Your task to perform on an android device: turn off wifi Image 0: 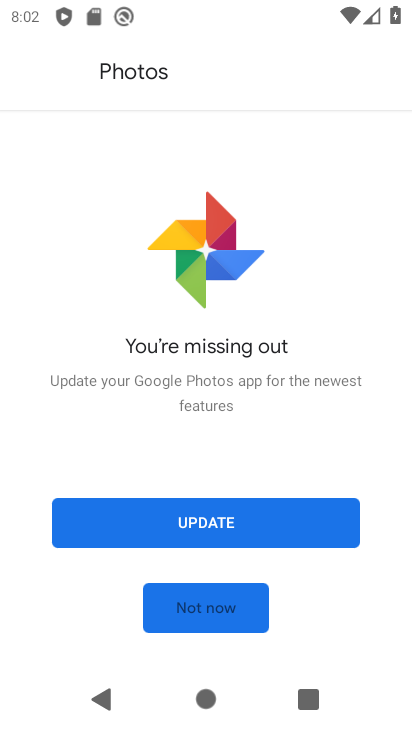
Step 0: press home button
Your task to perform on an android device: turn off wifi Image 1: 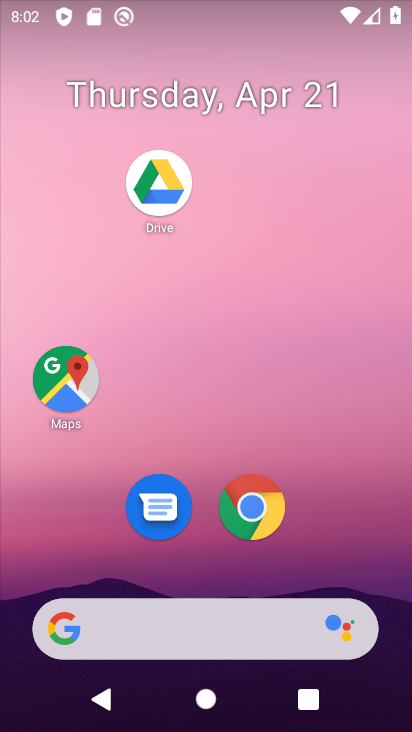
Step 1: drag from (346, 547) to (363, 143)
Your task to perform on an android device: turn off wifi Image 2: 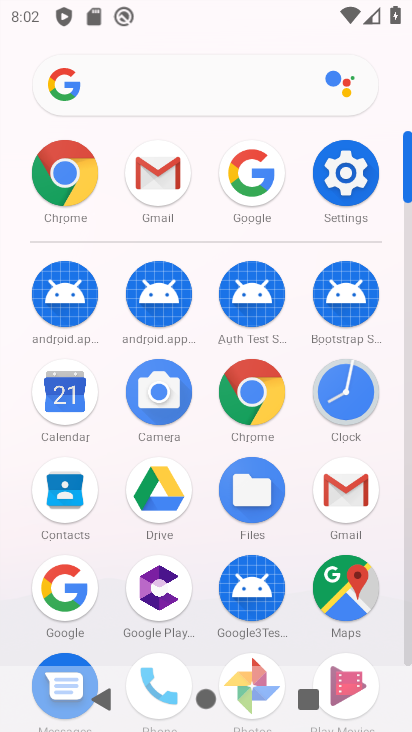
Step 2: click (351, 181)
Your task to perform on an android device: turn off wifi Image 3: 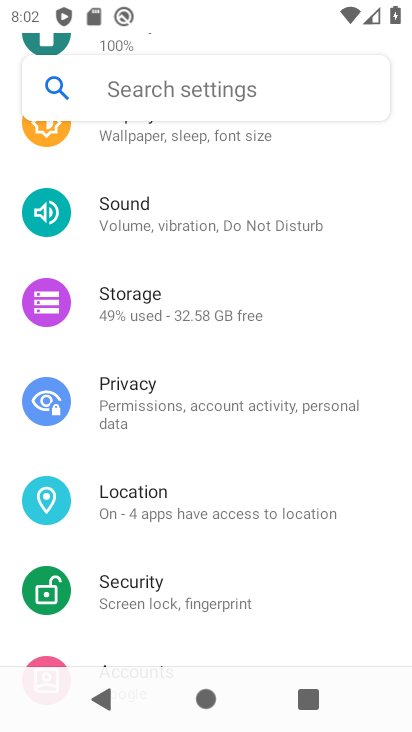
Step 3: drag from (371, 608) to (372, 416)
Your task to perform on an android device: turn off wifi Image 4: 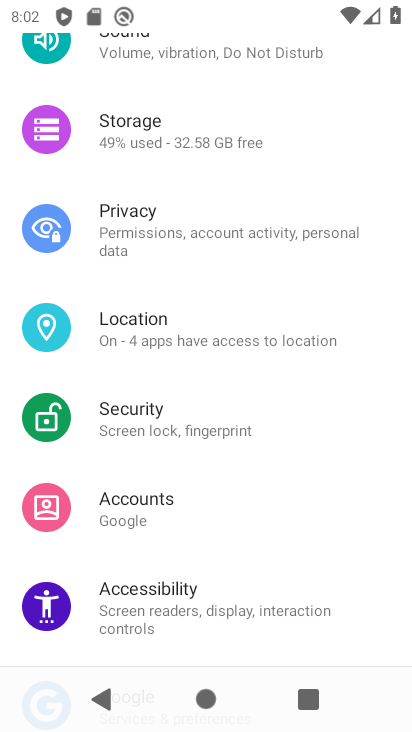
Step 4: drag from (360, 533) to (363, 321)
Your task to perform on an android device: turn off wifi Image 5: 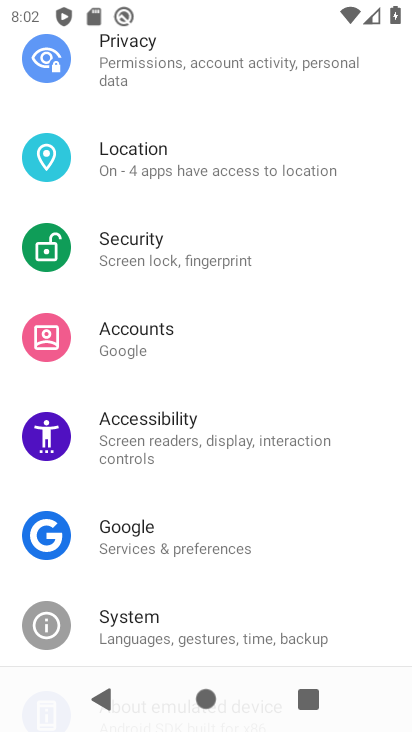
Step 5: drag from (361, 543) to (361, 319)
Your task to perform on an android device: turn off wifi Image 6: 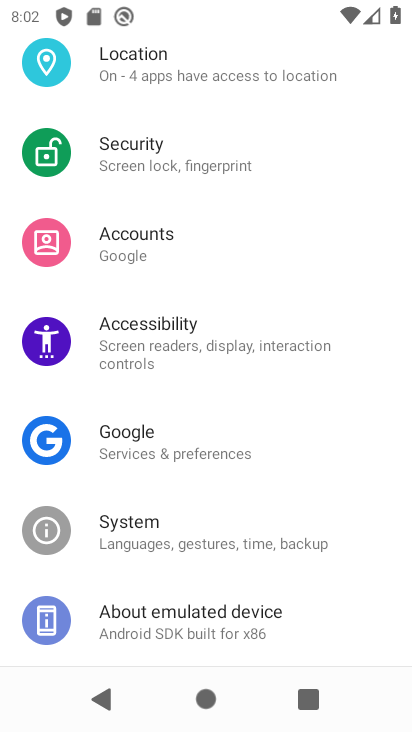
Step 6: drag from (370, 259) to (364, 407)
Your task to perform on an android device: turn off wifi Image 7: 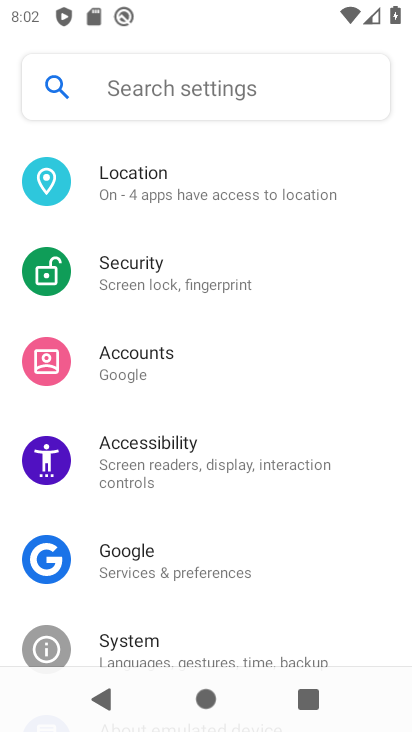
Step 7: drag from (369, 276) to (378, 429)
Your task to perform on an android device: turn off wifi Image 8: 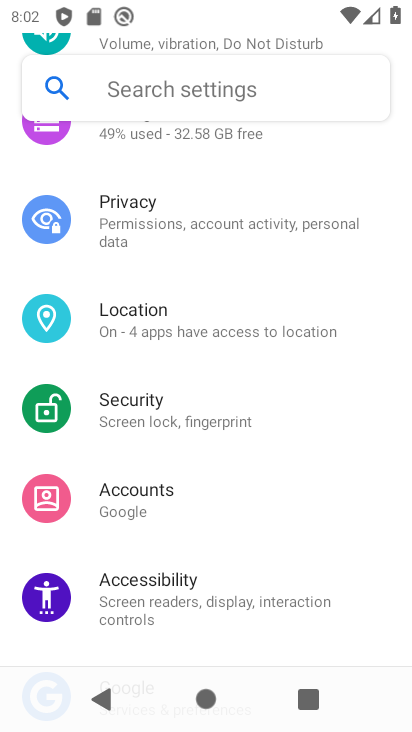
Step 8: drag from (385, 249) to (380, 391)
Your task to perform on an android device: turn off wifi Image 9: 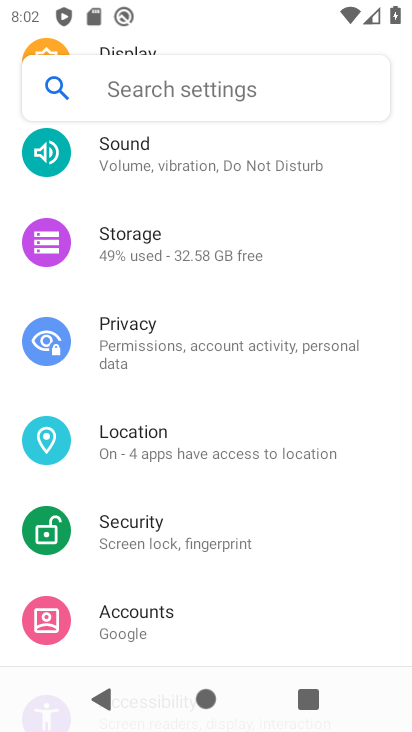
Step 9: drag from (379, 245) to (380, 399)
Your task to perform on an android device: turn off wifi Image 10: 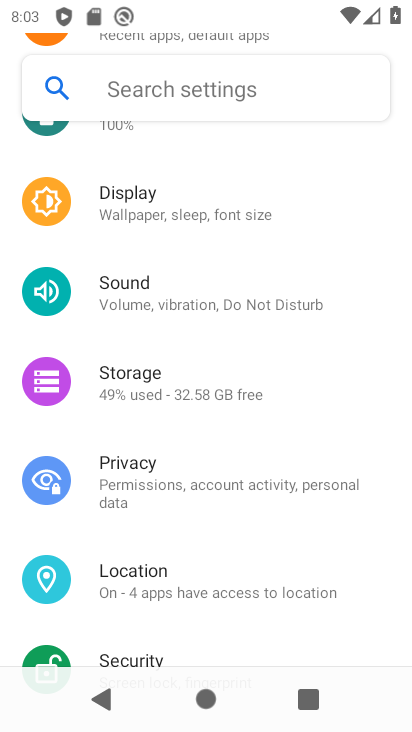
Step 10: drag from (374, 224) to (370, 363)
Your task to perform on an android device: turn off wifi Image 11: 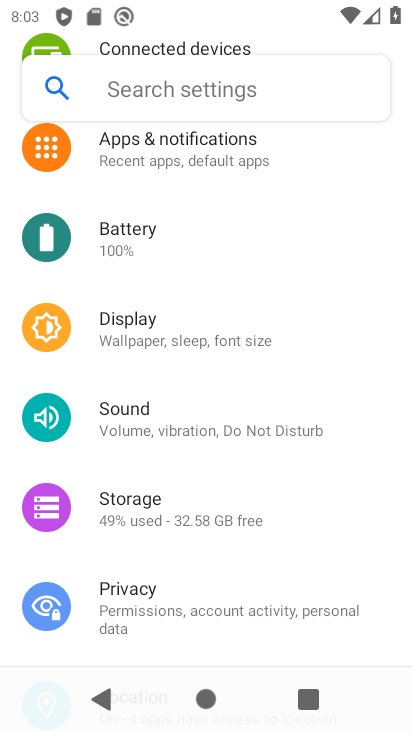
Step 11: drag from (362, 218) to (356, 398)
Your task to perform on an android device: turn off wifi Image 12: 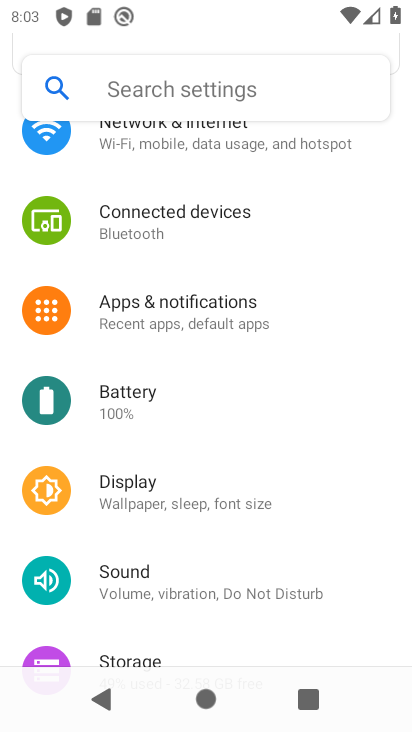
Step 12: drag from (373, 199) to (367, 341)
Your task to perform on an android device: turn off wifi Image 13: 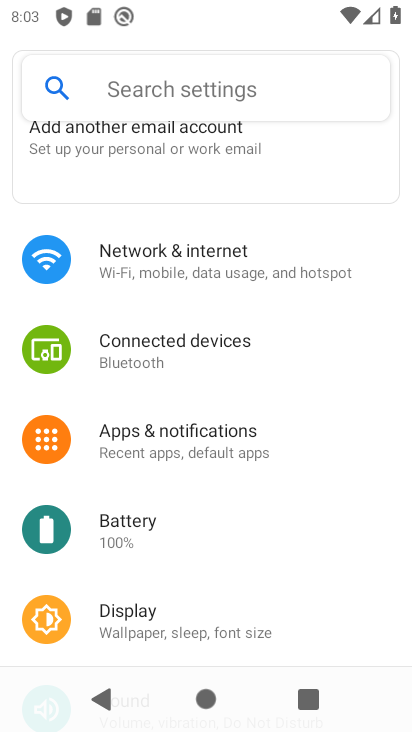
Step 13: click (267, 260)
Your task to perform on an android device: turn off wifi Image 14: 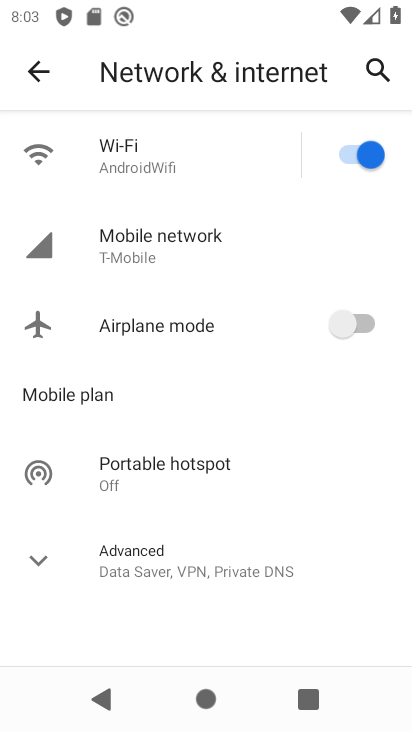
Step 14: click (358, 152)
Your task to perform on an android device: turn off wifi Image 15: 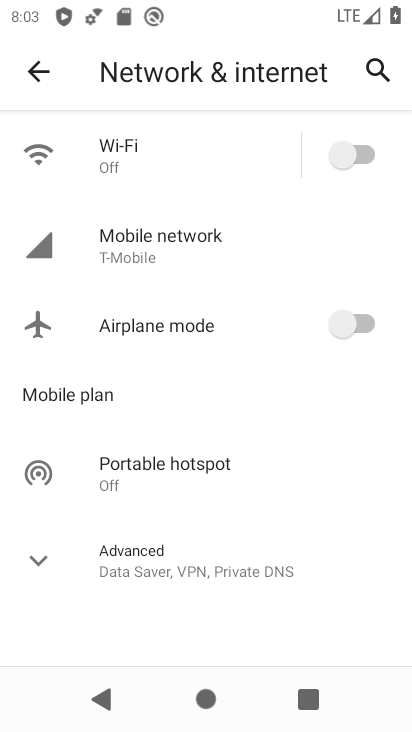
Step 15: task complete